Your task to perform on an android device: Open the phone app and click the voicemail tab. Image 0: 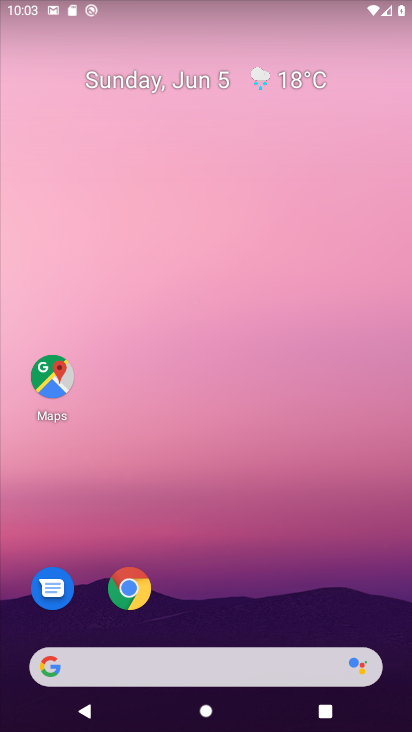
Step 0: drag from (293, 569) to (295, 218)
Your task to perform on an android device: Open the phone app and click the voicemail tab. Image 1: 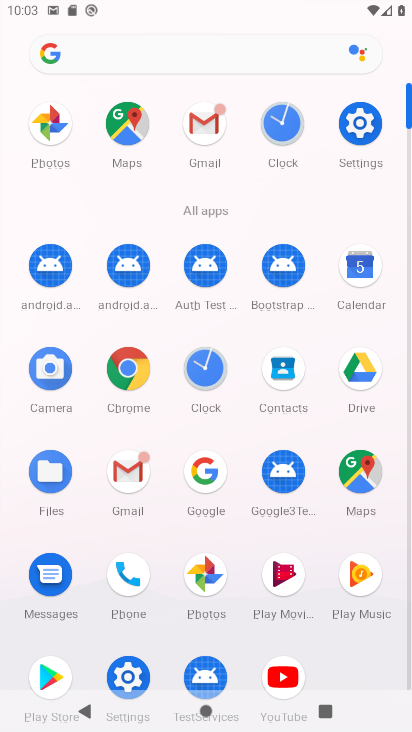
Step 1: drag from (329, 604) to (333, 230)
Your task to perform on an android device: Open the phone app and click the voicemail tab. Image 2: 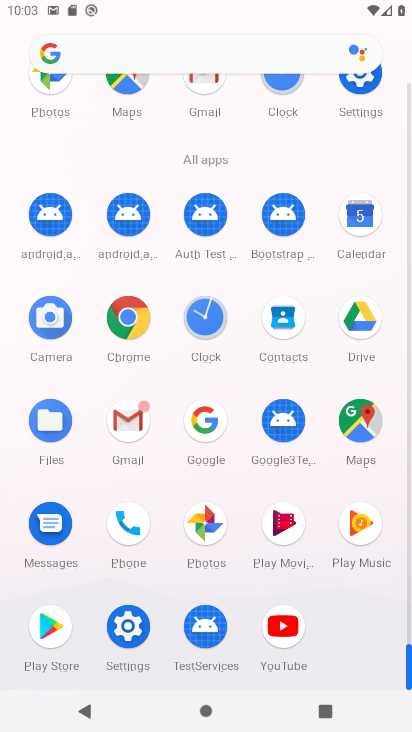
Step 2: click (121, 527)
Your task to perform on an android device: Open the phone app and click the voicemail tab. Image 3: 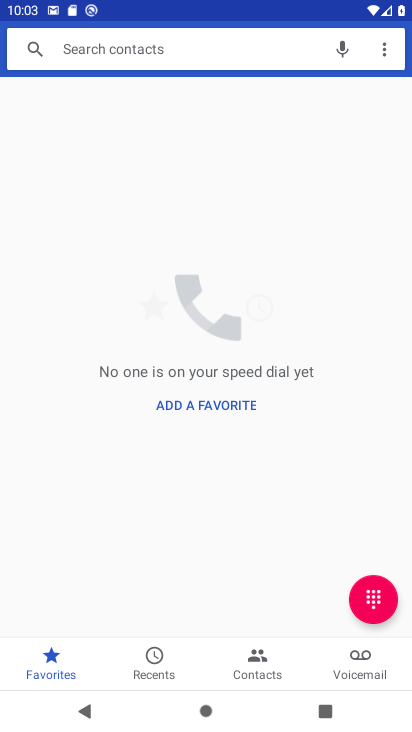
Step 3: click (350, 656)
Your task to perform on an android device: Open the phone app and click the voicemail tab. Image 4: 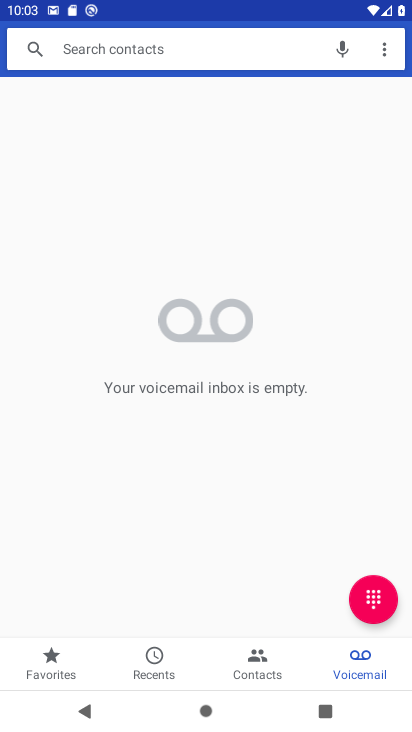
Step 4: task complete